Your task to perform on an android device: Search for Italian restaurants on Maps Image 0: 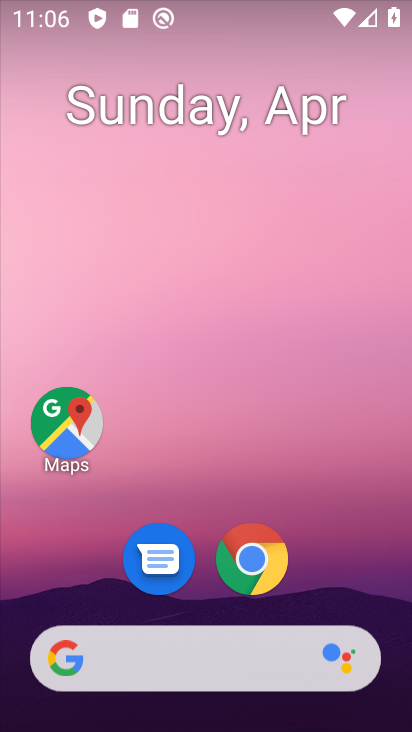
Step 0: click (79, 414)
Your task to perform on an android device: Search for Italian restaurants on Maps Image 1: 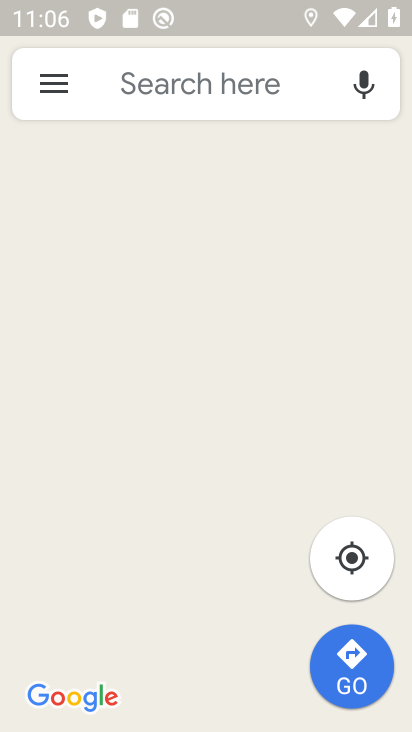
Step 1: click (202, 98)
Your task to perform on an android device: Search for Italian restaurants on Maps Image 2: 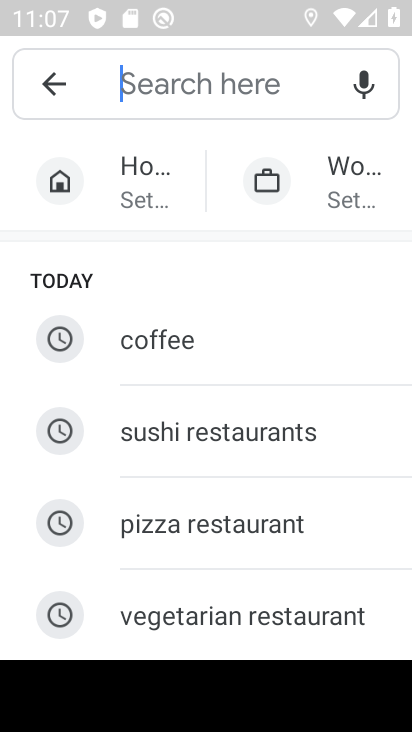
Step 2: type "italian restaurants"
Your task to perform on an android device: Search for Italian restaurants on Maps Image 3: 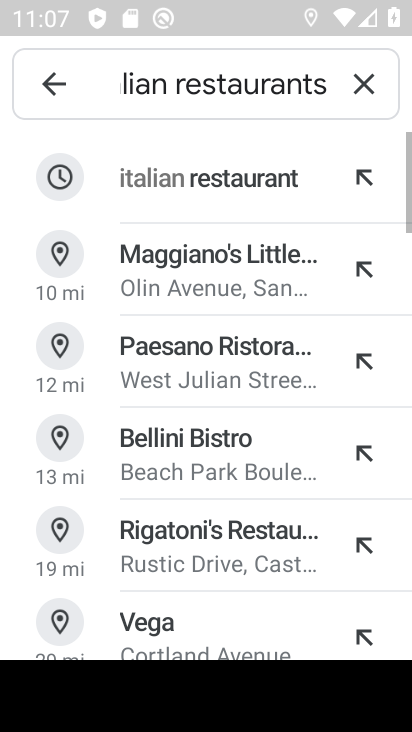
Step 3: click (152, 166)
Your task to perform on an android device: Search for Italian restaurants on Maps Image 4: 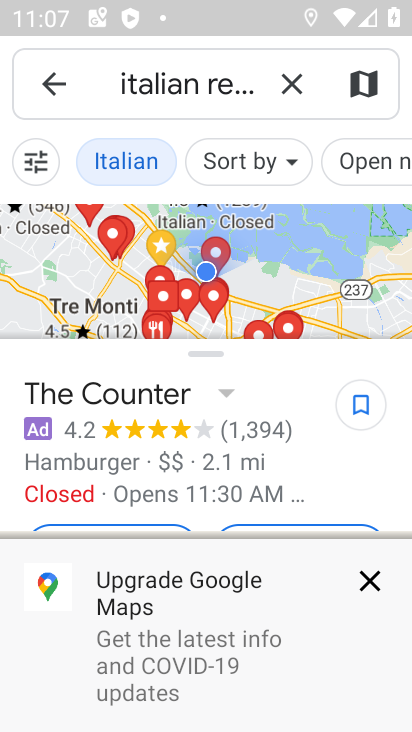
Step 4: task complete